Your task to perform on an android device: Go to Yahoo.com Image 0: 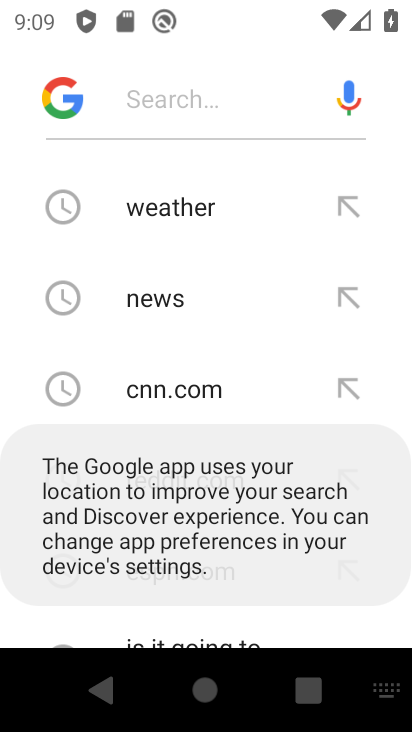
Step 0: press home button
Your task to perform on an android device: Go to Yahoo.com Image 1: 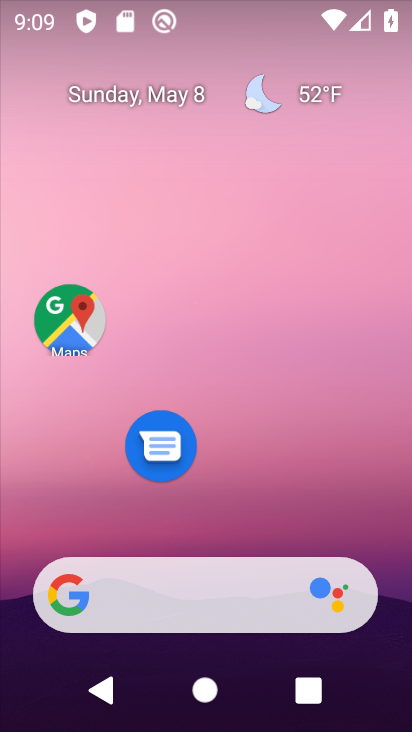
Step 1: drag from (279, 496) to (296, 0)
Your task to perform on an android device: Go to Yahoo.com Image 2: 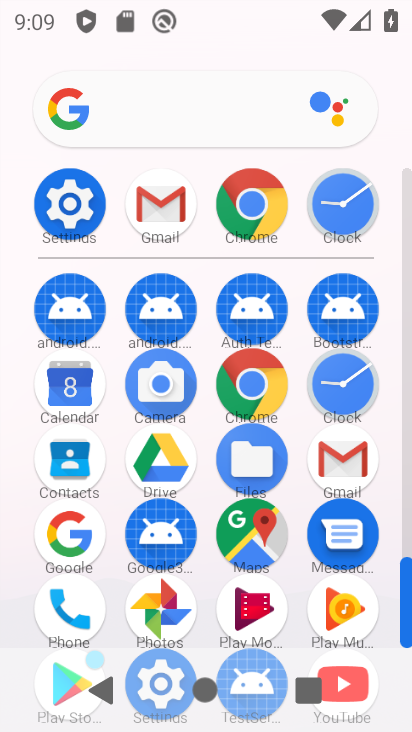
Step 2: click (265, 376)
Your task to perform on an android device: Go to Yahoo.com Image 3: 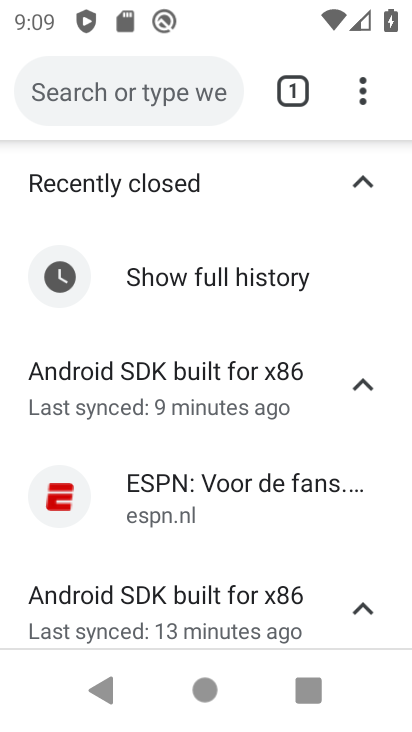
Step 3: drag from (361, 93) to (198, 463)
Your task to perform on an android device: Go to Yahoo.com Image 4: 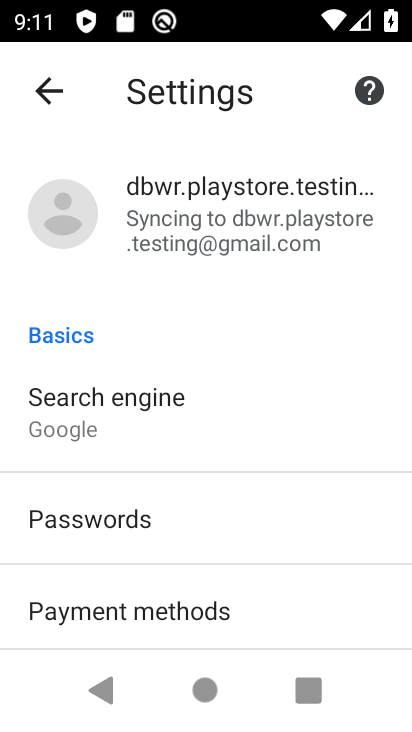
Step 4: click (61, 103)
Your task to perform on an android device: Go to Yahoo.com Image 5: 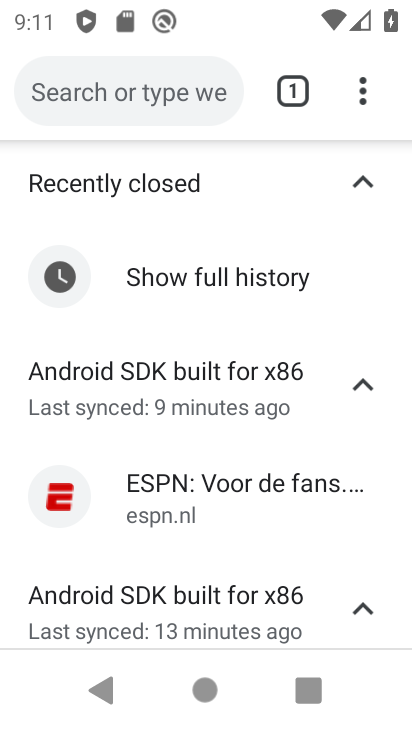
Step 5: click (186, 105)
Your task to perform on an android device: Go to Yahoo.com Image 6: 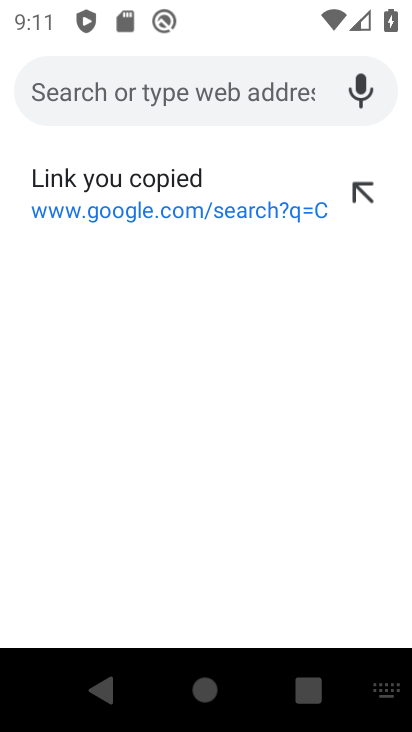
Step 6: click (265, 534)
Your task to perform on an android device: Go to Yahoo.com Image 7: 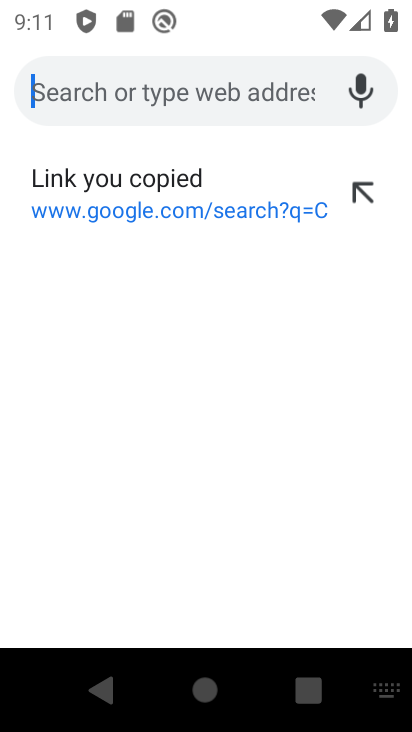
Step 7: click (188, 98)
Your task to perform on an android device: Go to Yahoo.com Image 8: 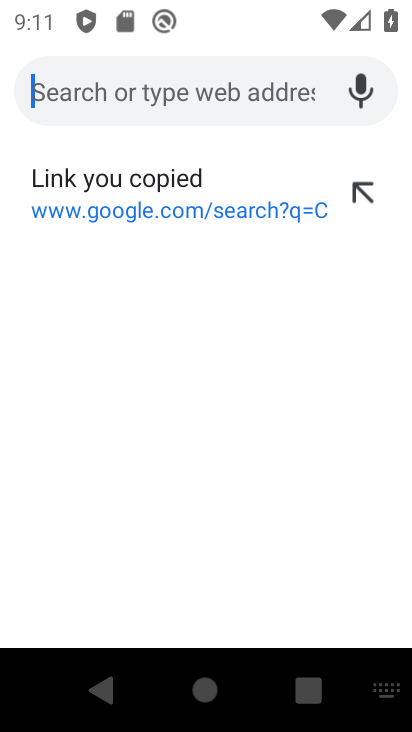
Step 8: type " Yahoo.com"
Your task to perform on an android device: Go to Yahoo.com Image 9: 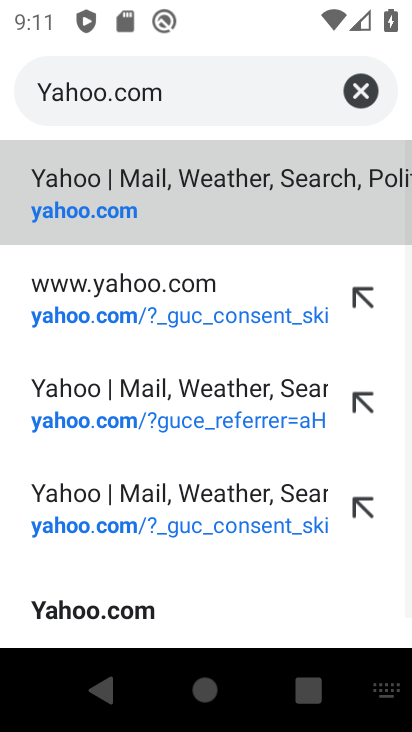
Step 9: click (212, 184)
Your task to perform on an android device: Go to Yahoo.com Image 10: 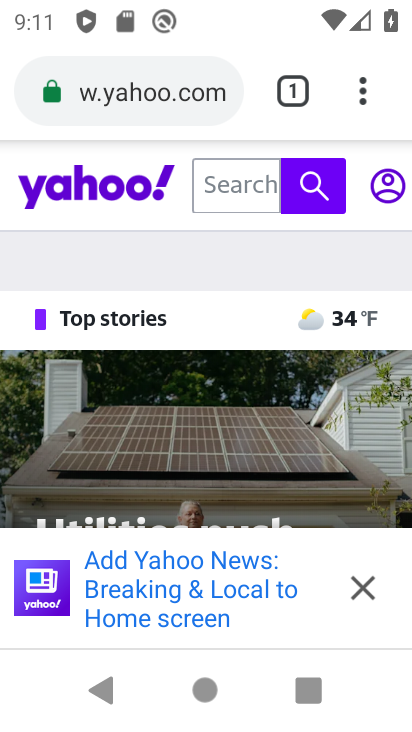
Step 10: task complete